Your task to perform on an android device: turn on wifi Image 0: 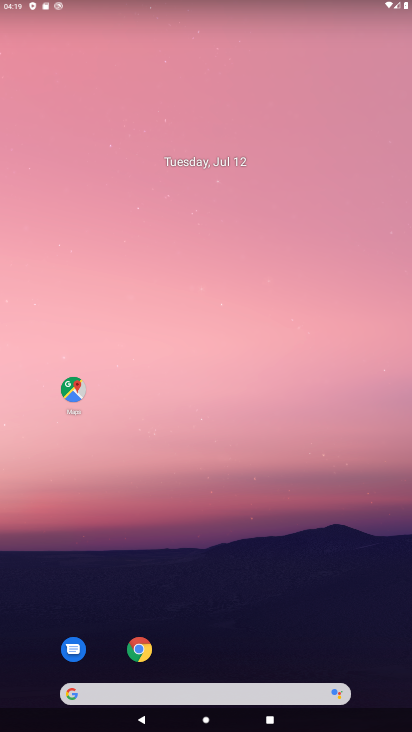
Step 0: drag from (199, 689) to (277, 157)
Your task to perform on an android device: turn on wifi Image 1: 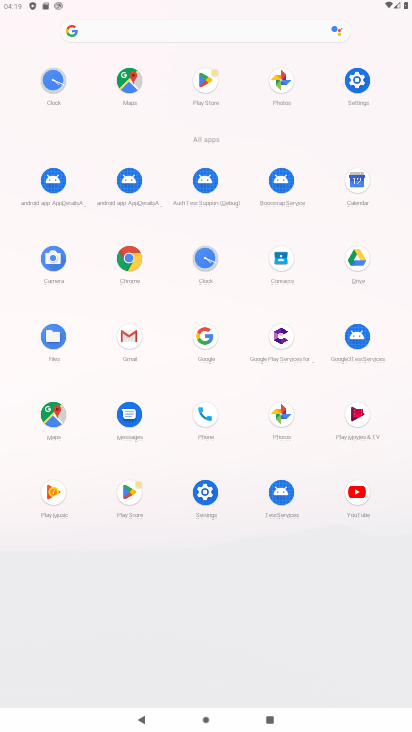
Step 1: click (359, 81)
Your task to perform on an android device: turn on wifi Image 2: 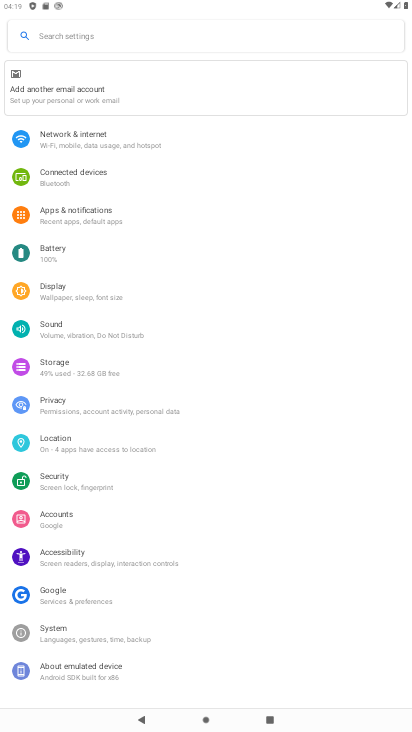
Step 2: click (87, 136)
Your task to perform on an android device: turn on wifi Image 3: 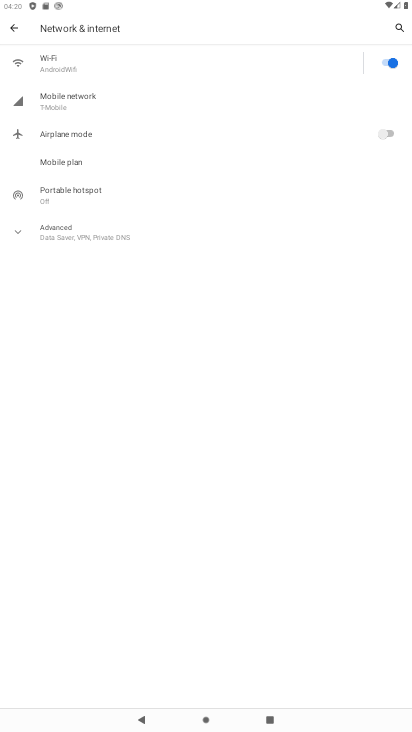
Step 3: task complete